Your task to perform on an android device: Open Google Image 0: 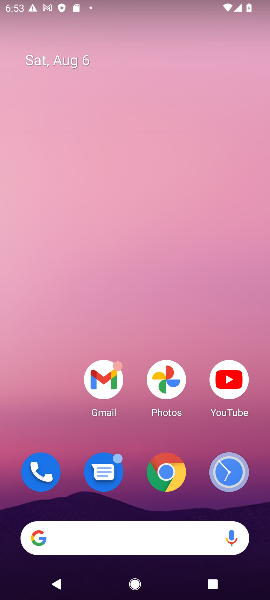
Step 0: click (164, 473)
Your task to perform on an android device: Open Google Image 1: 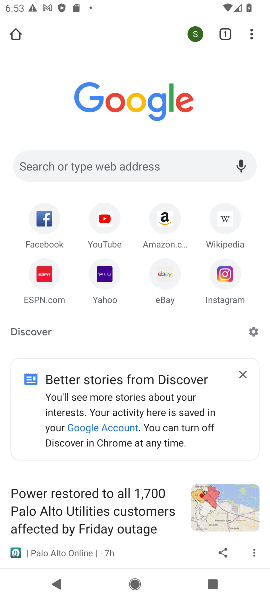
Step 1: task complete